Your task to perform on an android device: Add "razer thresher" to the cart on ebay, then select checkout. Image 0: 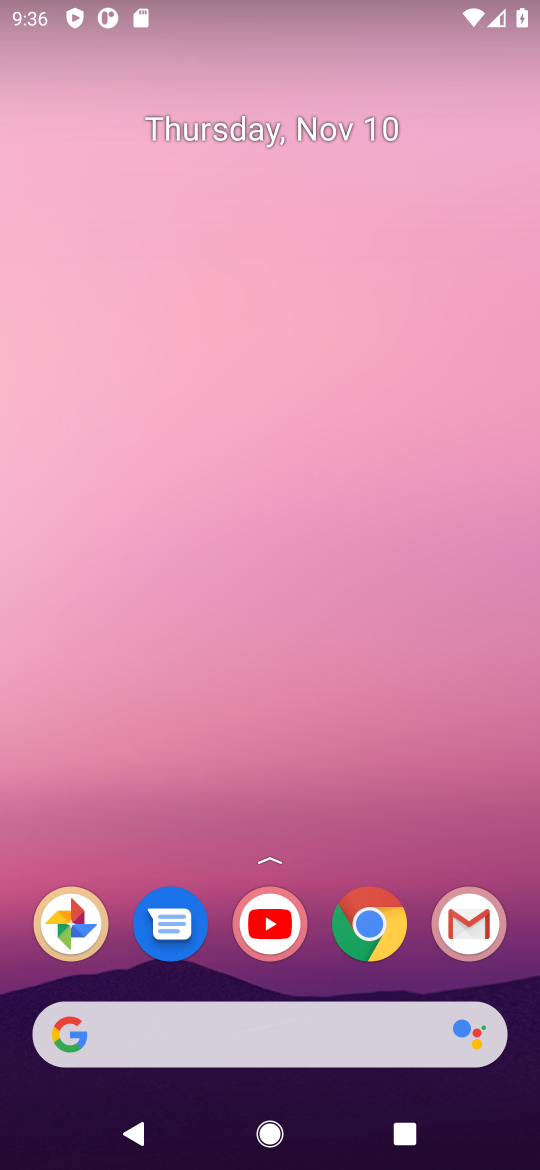
Step 0: click (365, 925)
Your task to perform on an android device: Add "razer thresher" to the cart on ebay, then select checkout. Image 1: 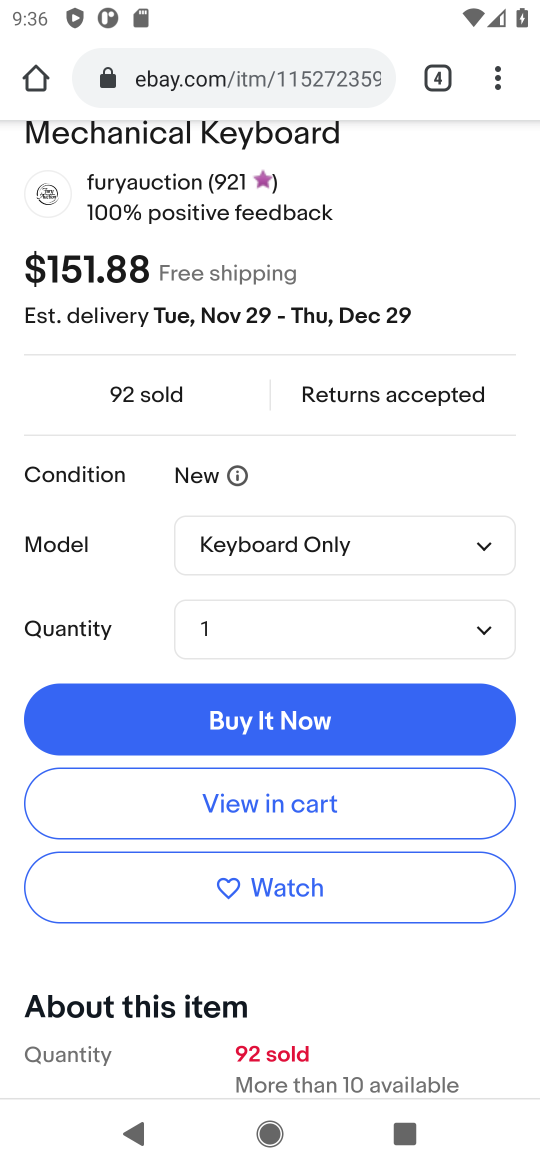
Step 1: drag from (292, 247) to (271, 804)
Your task to perform on an android device: Add "razer thresher" to the cart on ebay, then select checkout. Image 2: 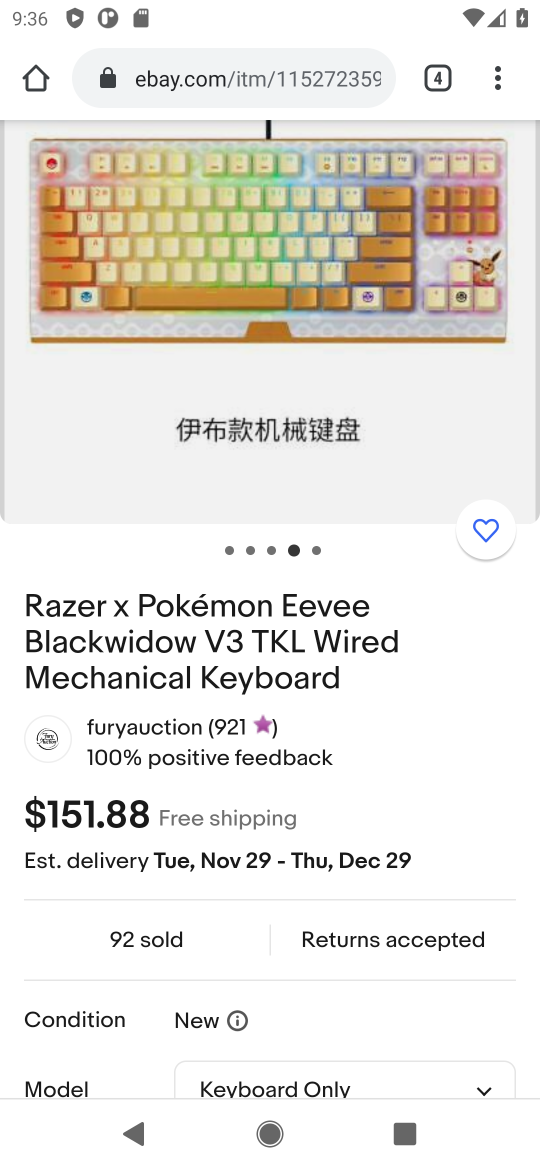
Step 2: drag from (215, 404) to (196, 832)
Your task to perform on an android device: Add "razer thresher" to the cart on ebay, then select checkout. Image 3: 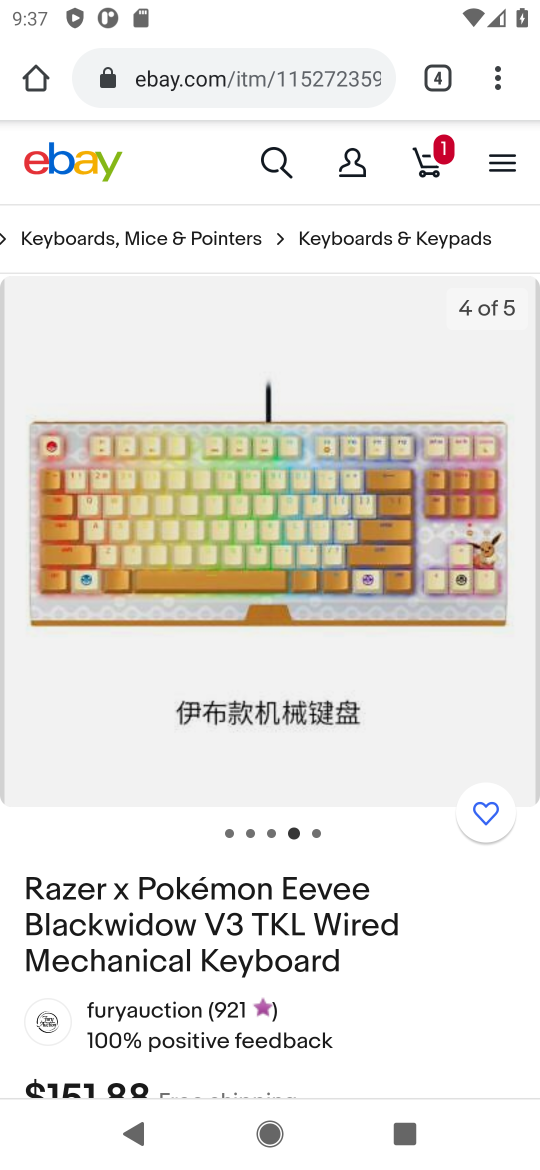
Step 3: drag from (335, 808) to (337, 388)
Your task to perform on an android device: Add "razer thresher" to the cart on ebay, then select checkout. Image 4: 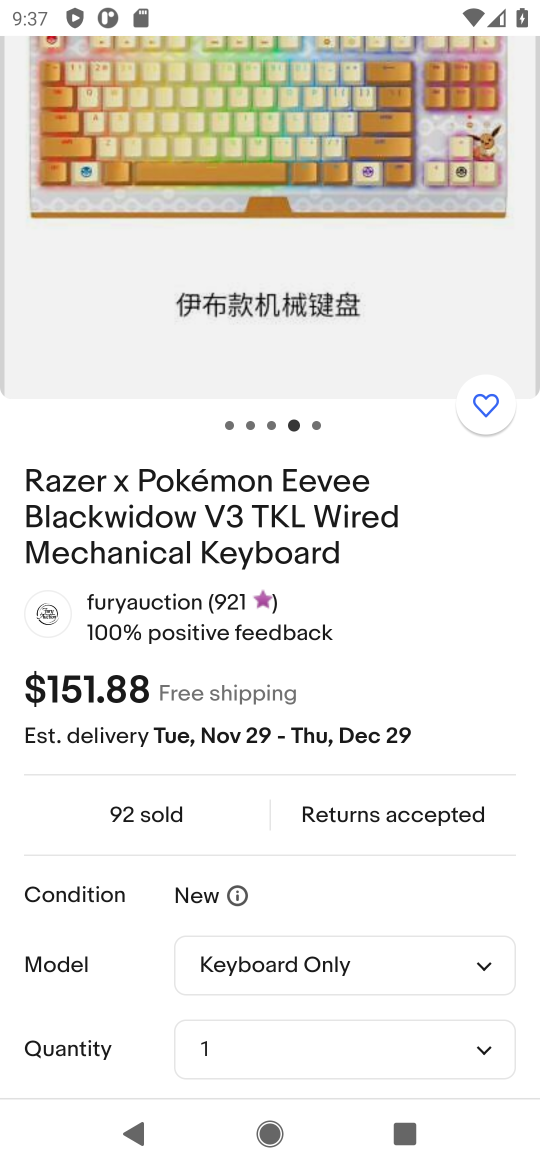
Step 4: drag from (245, 713) to (248, 484)
Your task to perform on an android device: Add "razer thresher" to the cart on ebay, then select checkout. Image 5: 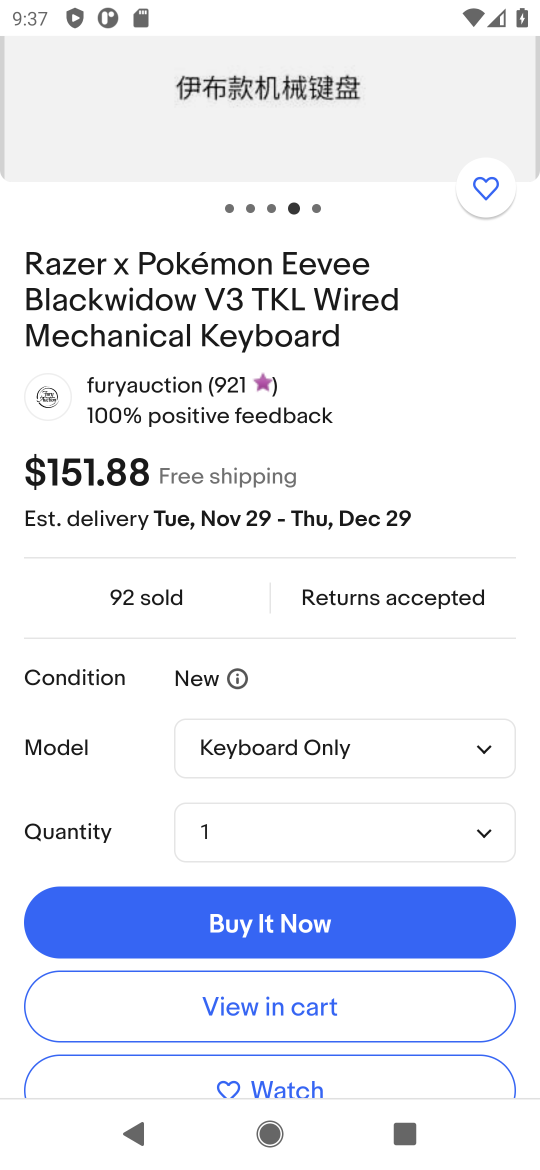
Step 5: drag from (304, 366) to (287, 1092)
Your task to perform on an android device: Add "razer thresher" to the cart on ebay, then select checkout. Image 6: 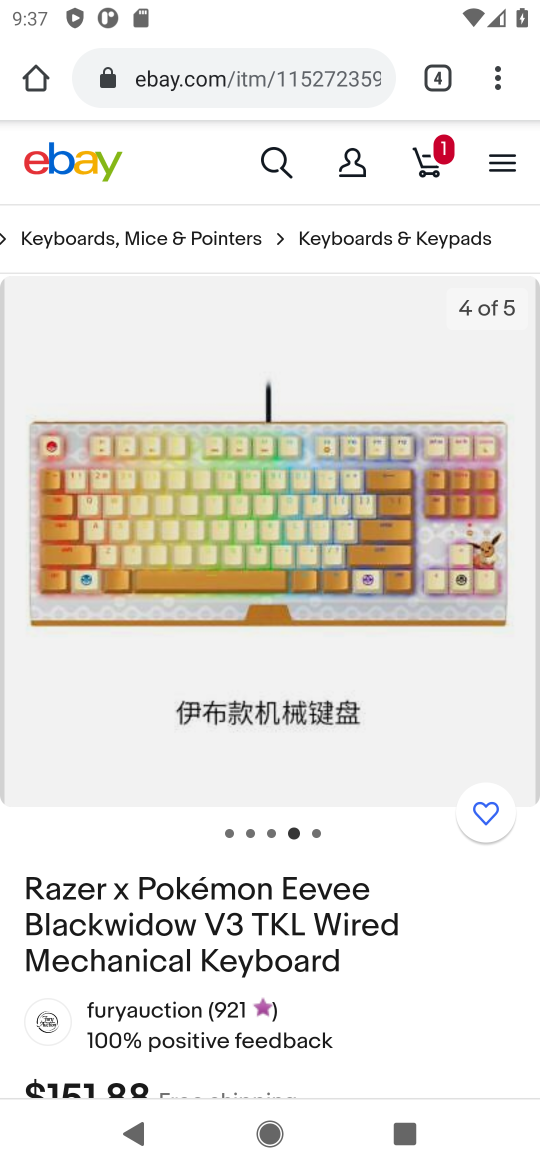
Step 6: drag from (227, 376) to (228, 700)
Your task to perform on an android device: Add "razer thresher" to the cart on ebay, then select checkout. Image 7: 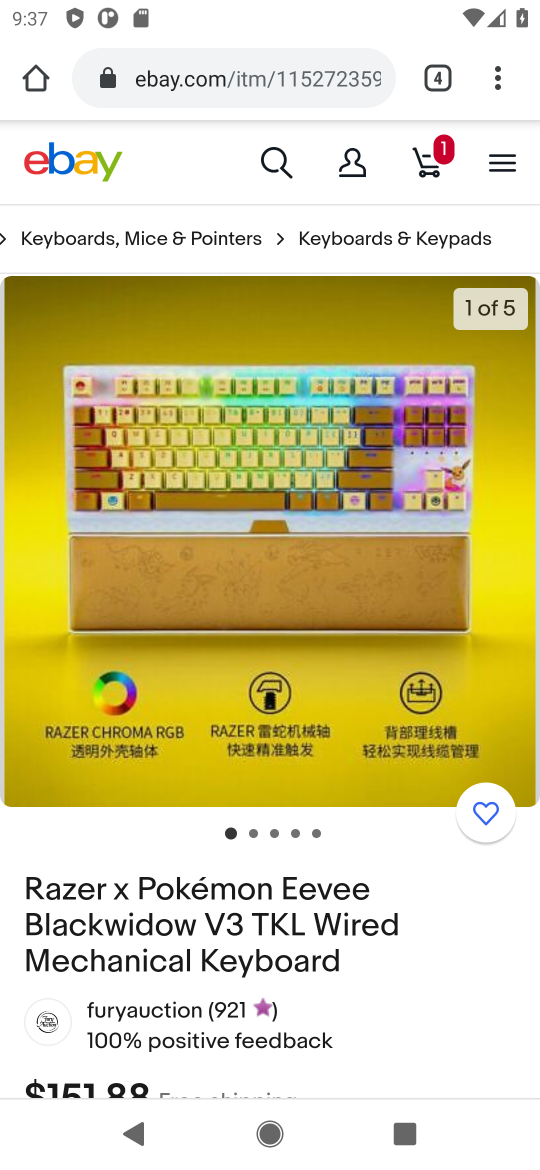
Step 7: click (268, 162)
Your task to perform on an android device: Add "razer thresher" to the cart on ebay, then select checkout. Image 8: 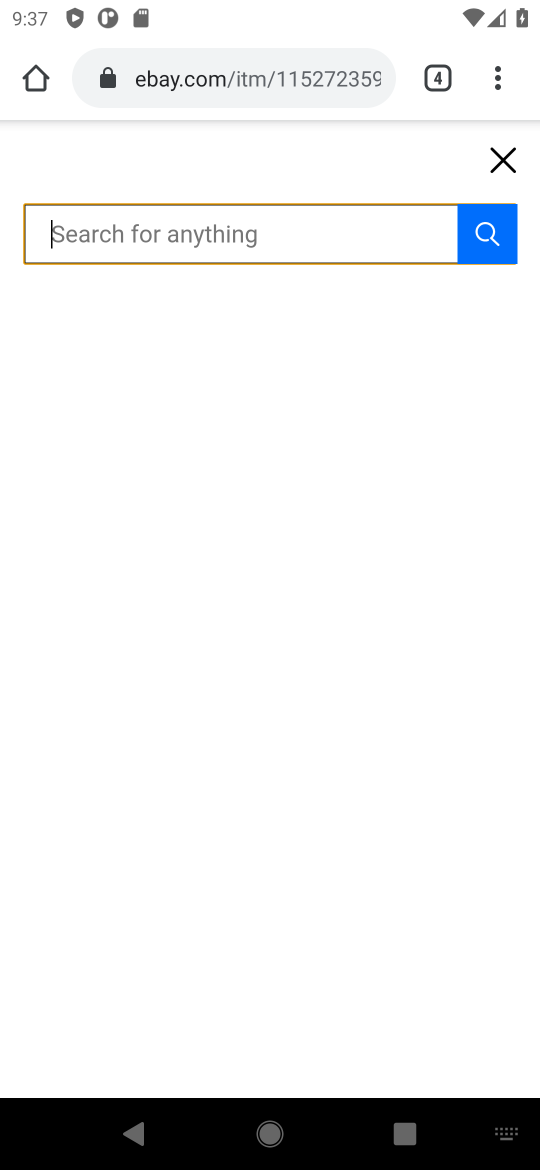
Step 8: type "razer thresher"
Your task to perform on an android device: Add "razer thresher" to the cart on ebay, then select checkout. Image 9: 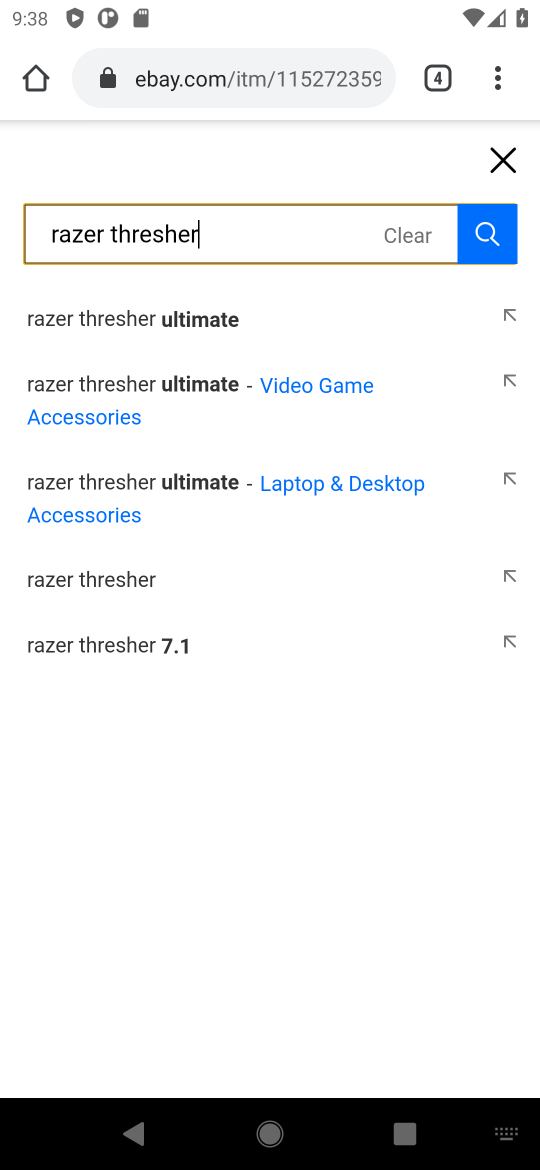
Step 9: click (107, 595)
Your task to perform on an android device: Add "razer thresher" to the cart on ebay, then select checkout. Image 10: 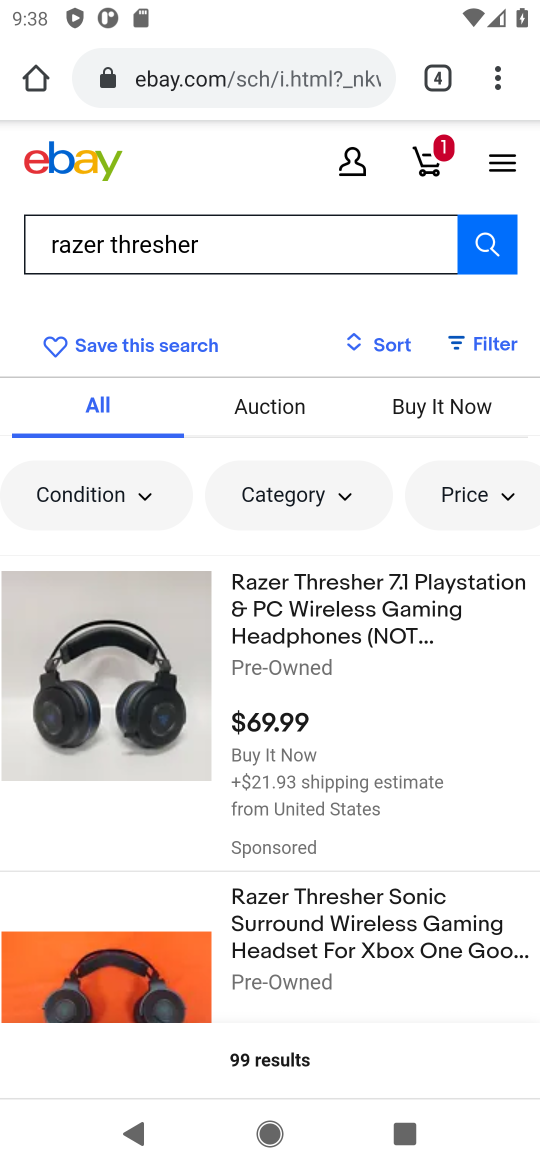
Step 10: click (135, 724)
Your task to perform on an android device: Add "razer thresher" to the cart on ebay, then select checkout. Image 11: 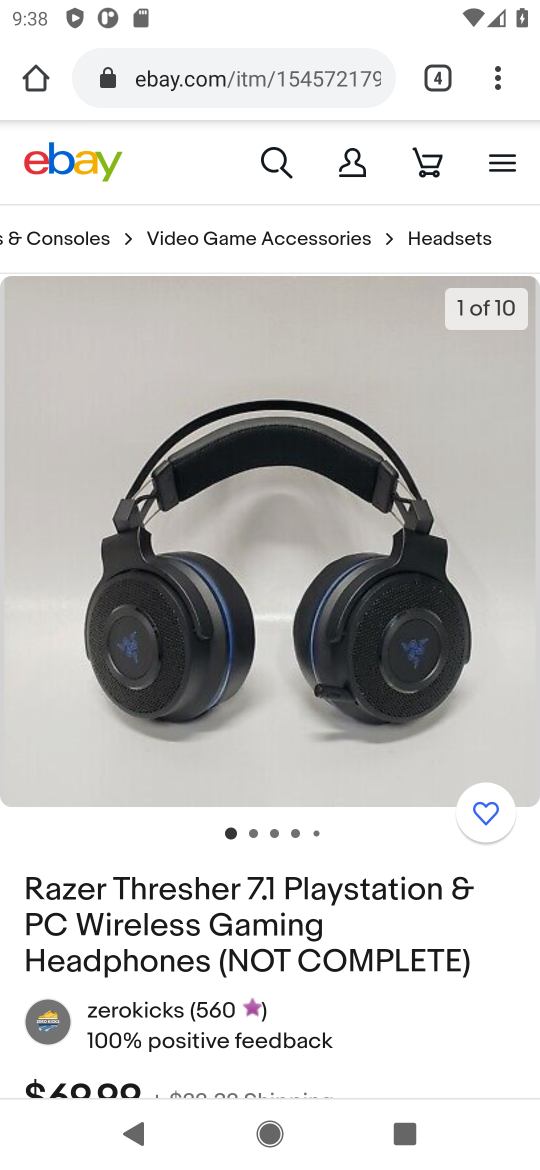
Step 11: drag from (190, 849) to (207, 357)
Your task to perform on an android device: Add "razer thresher" to the cart on ebay, then select checkout. Image 12: 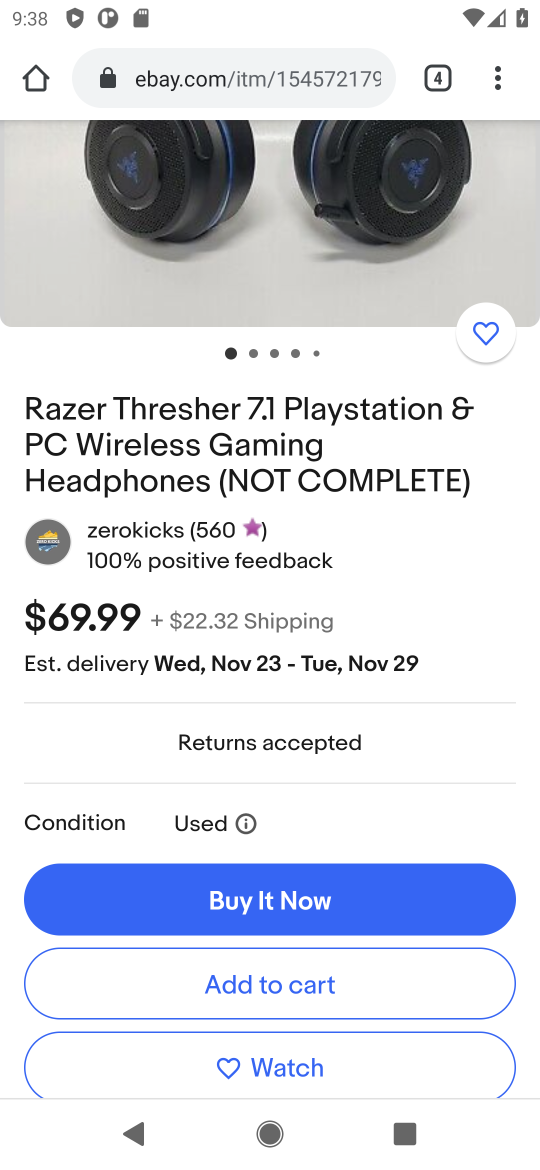
Step 12: click (250, 988)
Your task to perform on an android device: Add "razer thresher" to the cart on ebay, then select checkout. Image 13: 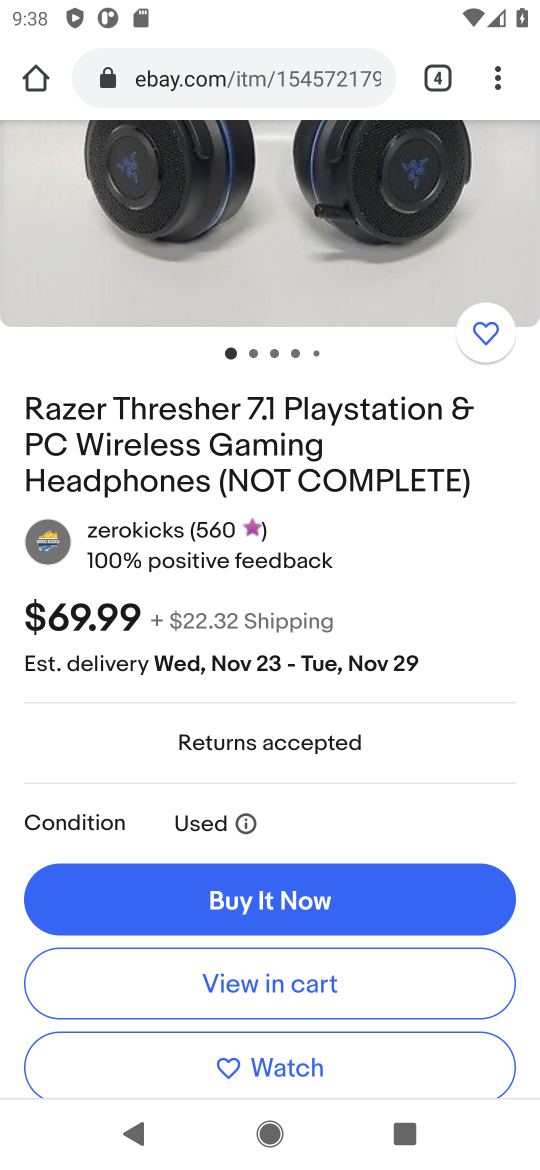
Step 13: click (250, 988)
Your task to perform on an android device: Add "razer thresher" to the cart on ebay, then select checkout. Image 14: 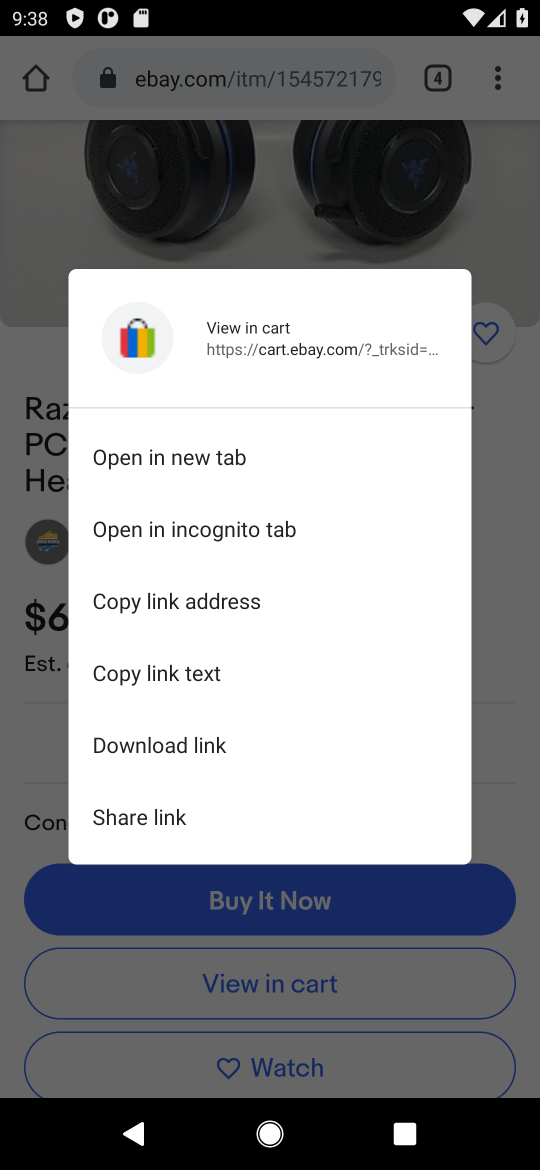
Step 14: click (250, 988)
Your task to perform on an android device: Add "razer thresher" to the cart on ebay, then select checkout. Image 15: 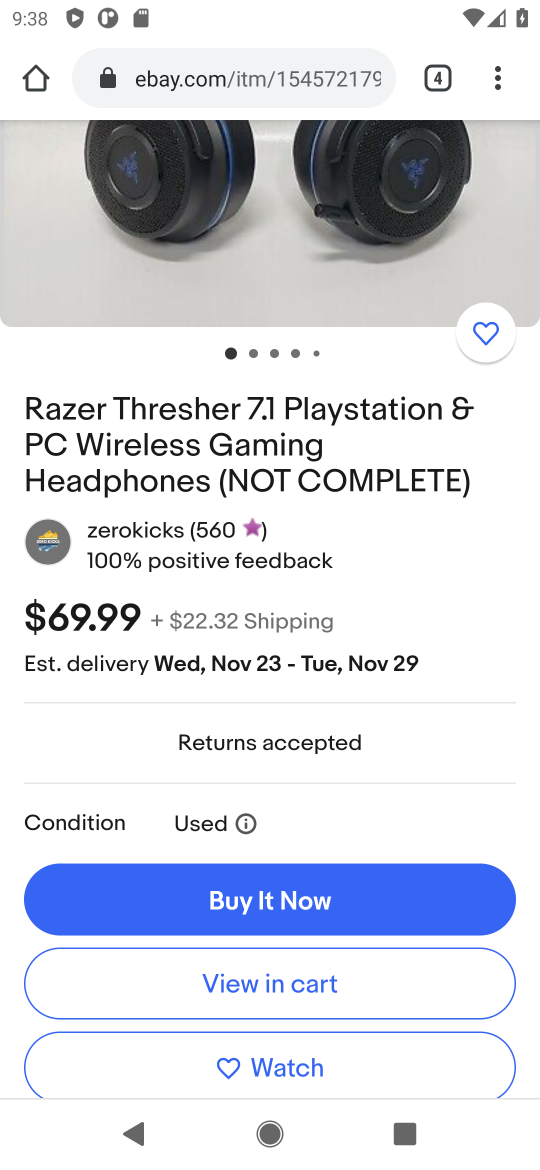
Step 15: click (280, 991)
Your task to perform on an android device: Add "razer thresher" to the cart on ebay, then select checkout. Image 16: 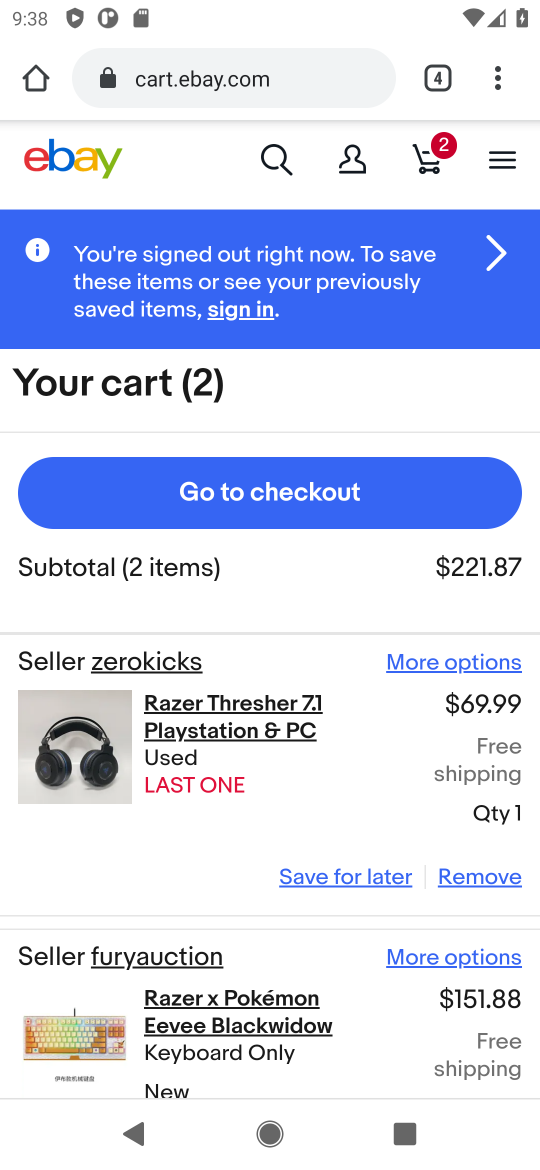
Step 16: click (263, 496)
Your task to perform on an android device: Add "razer thresher" to the cart on ebay, then select checkout. Image 17: 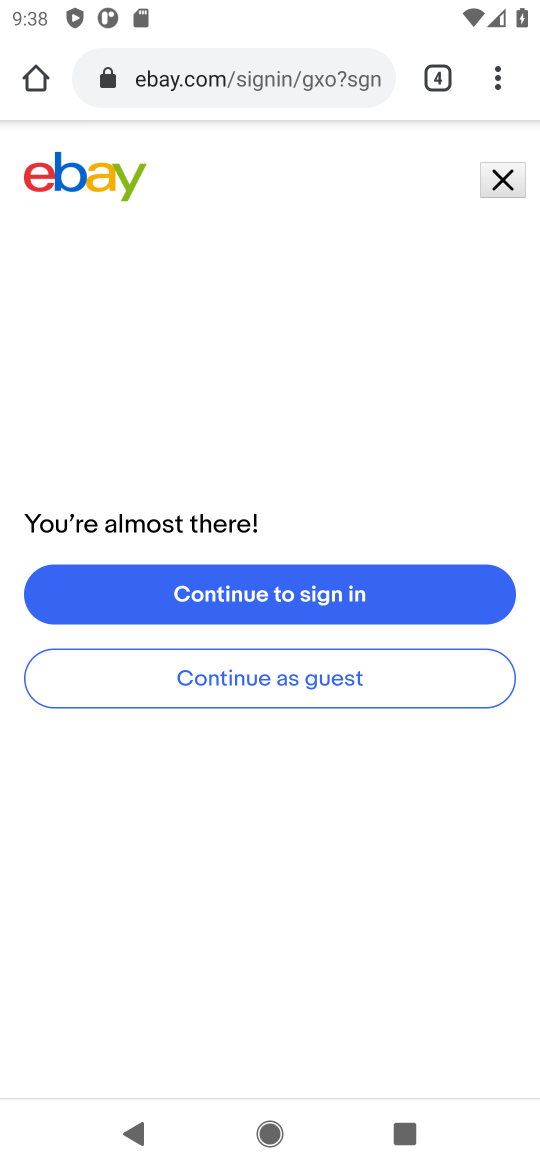
Step 17: task complete